Your task to perform on an android device: star an email in the gmail app Image 0: 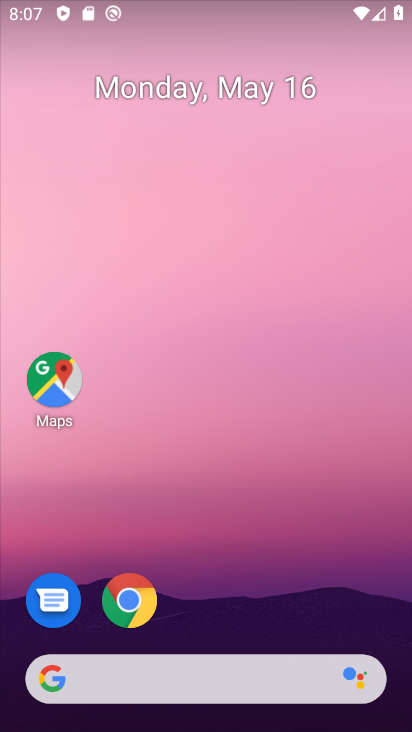
Step 0: drag from (312, 626) to (315, 67)
Your task to perform on an android device: star an email in the gmail app Image 1: 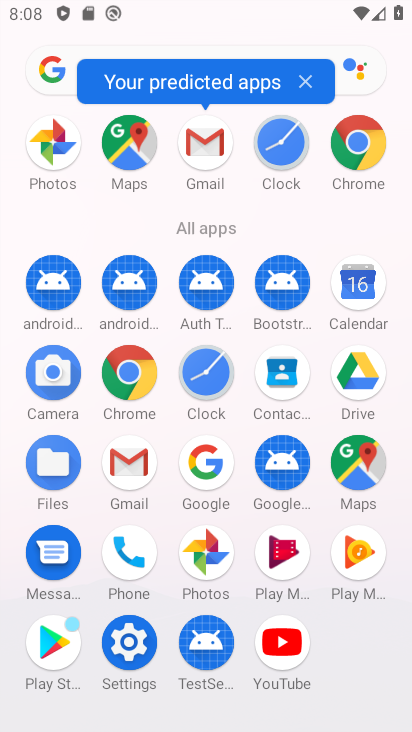
Step 1: click (123, 470)
Your task to perform on an android device: star an email in the gmail app Image 2: 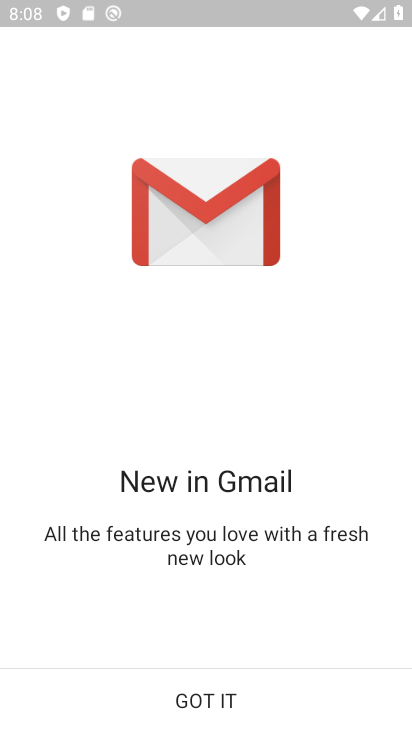
Step 2: click (167, 679)
Your task to perform on an android device: star an email in the gmail app Image 3: 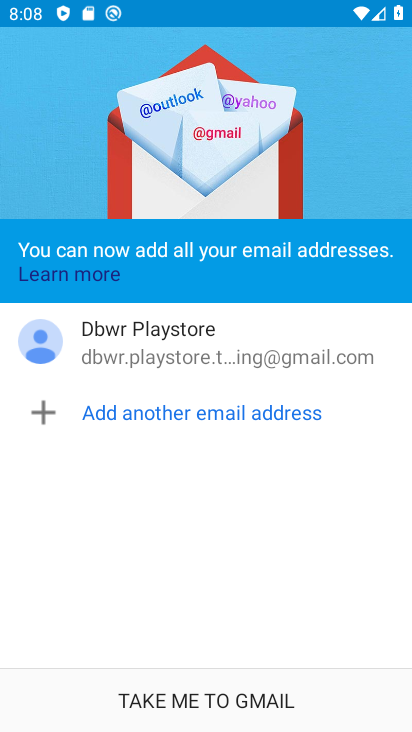
Step 3: click (169, 694)
Your task to perform on an android device: star an email in the gmail app Image 4: 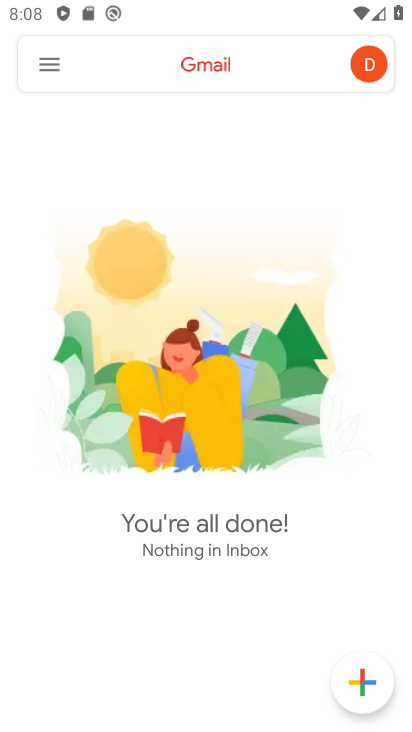
Step 4: click (51, 74)
Your task to perform on an android device: star an email in the gmail app Image 5: 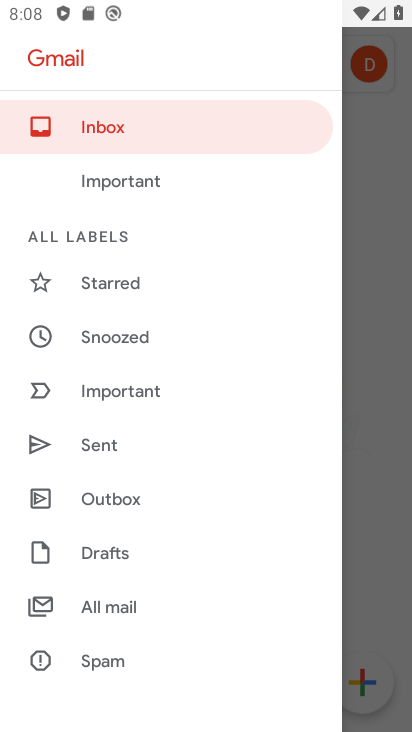
Step 5: click (126, 599)
Your task to perform on an android device: star an email in the gmail app Image 6: 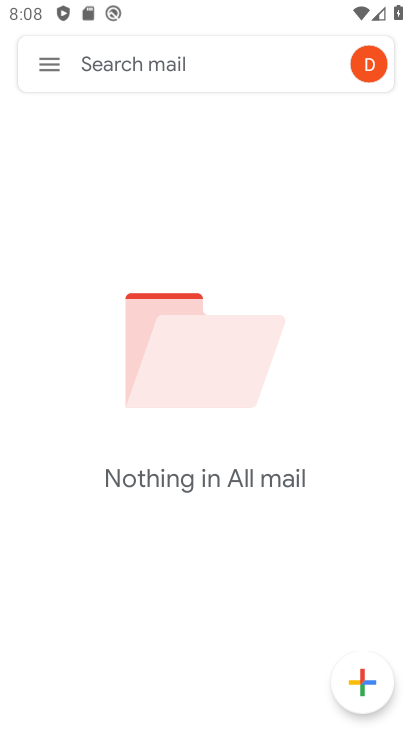
Step 6: task complete